Your task to perform on an android device: uninstall "VLC for Android" Image 0: 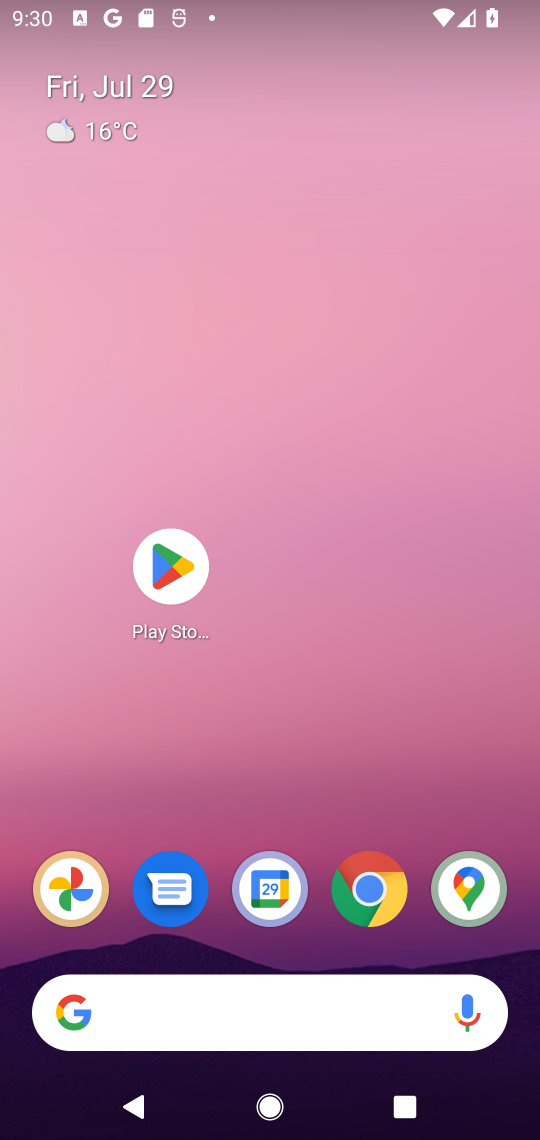
Step 0: click (141, 572)
Your task to perform on an android device: uninstall "VLC for Android" Image 1: 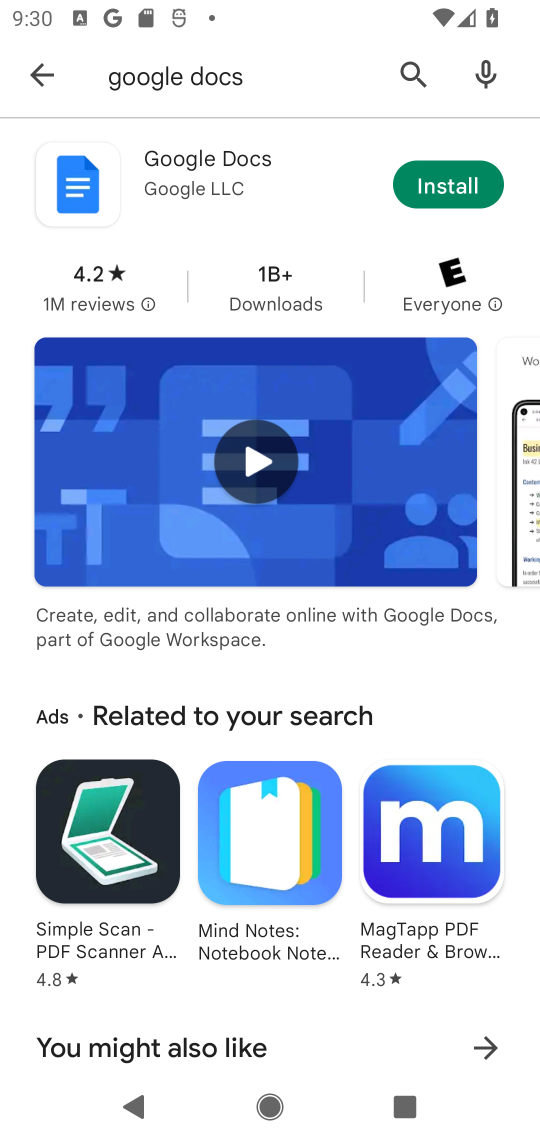
Step 1: click (405, 67)
Your task to perform on an android device: uninstall "VLC for Android" Image 2: 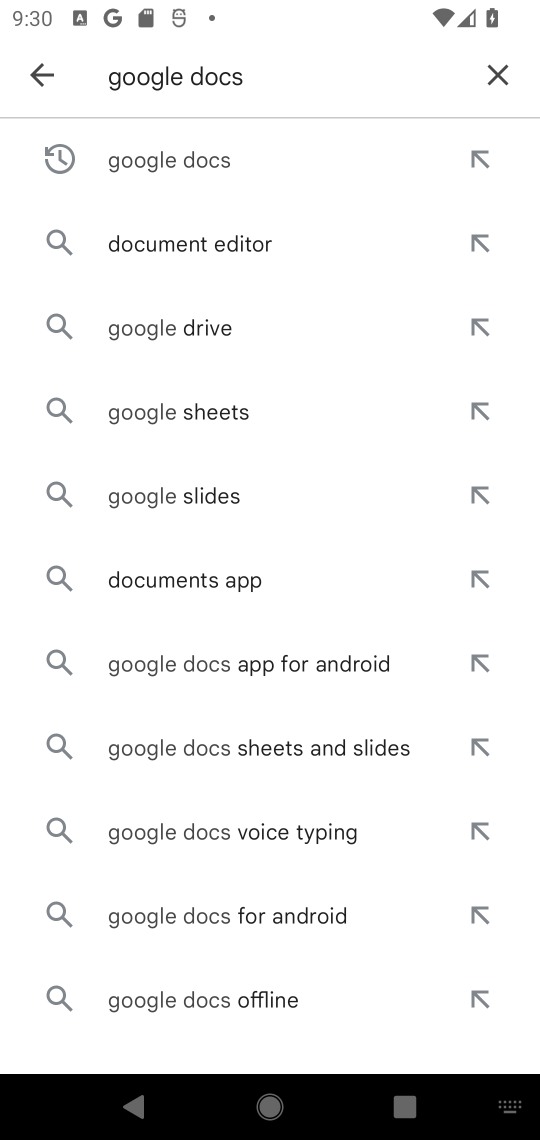
Step 2: click (498, 72)
Your task to perform on an android device: uninstall "VLC for Android" Image 3: 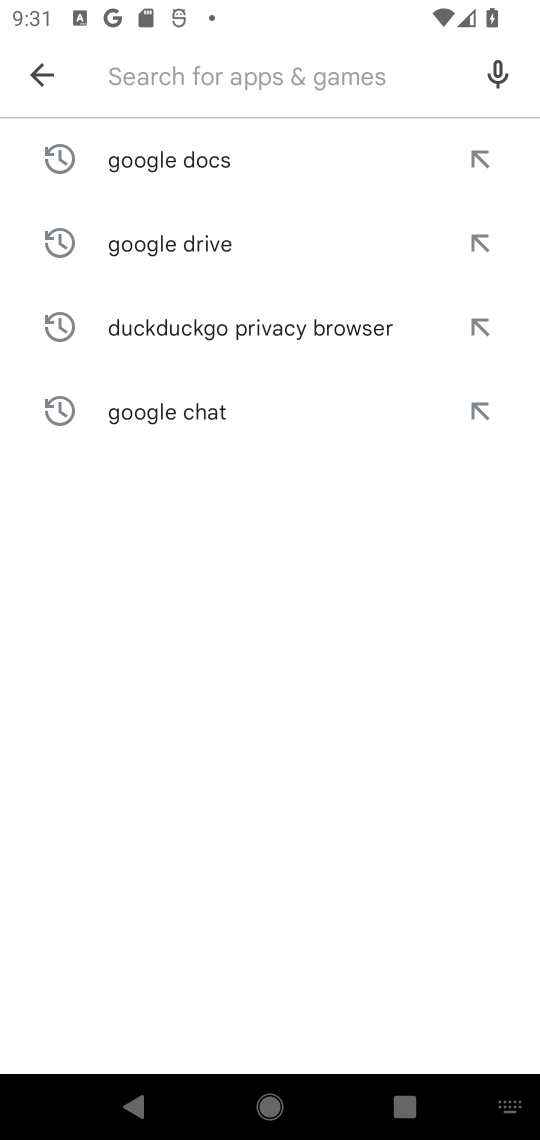
Step 3: type "VLC for Android"
Your task to perform on an android device: uninstall "VLC for Android" Image 4: 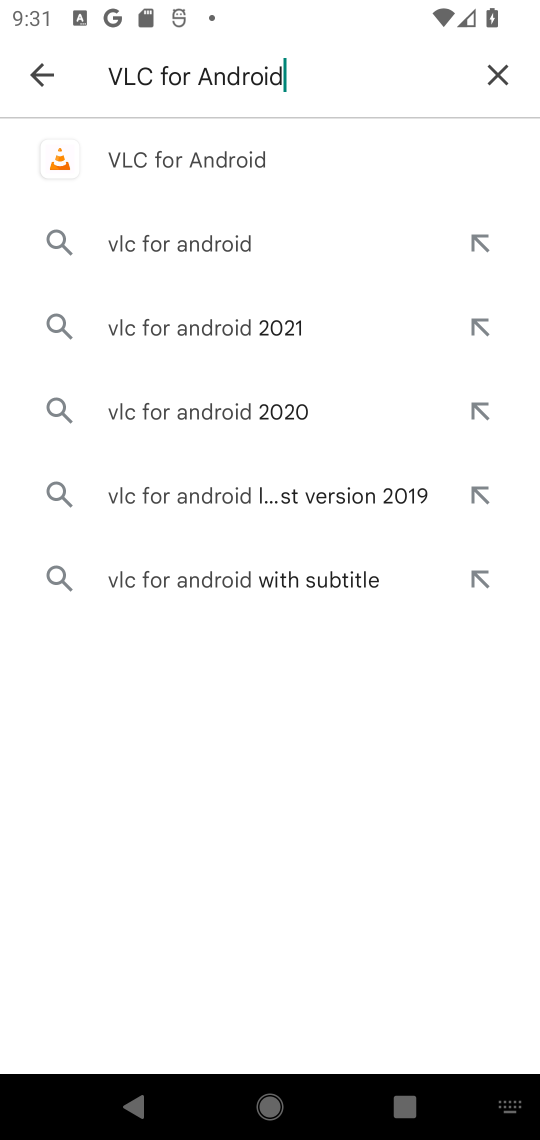
Step 4: click (243, 159)
Your task to perform on an android device: uninstall "VLC for Android" Image 5: 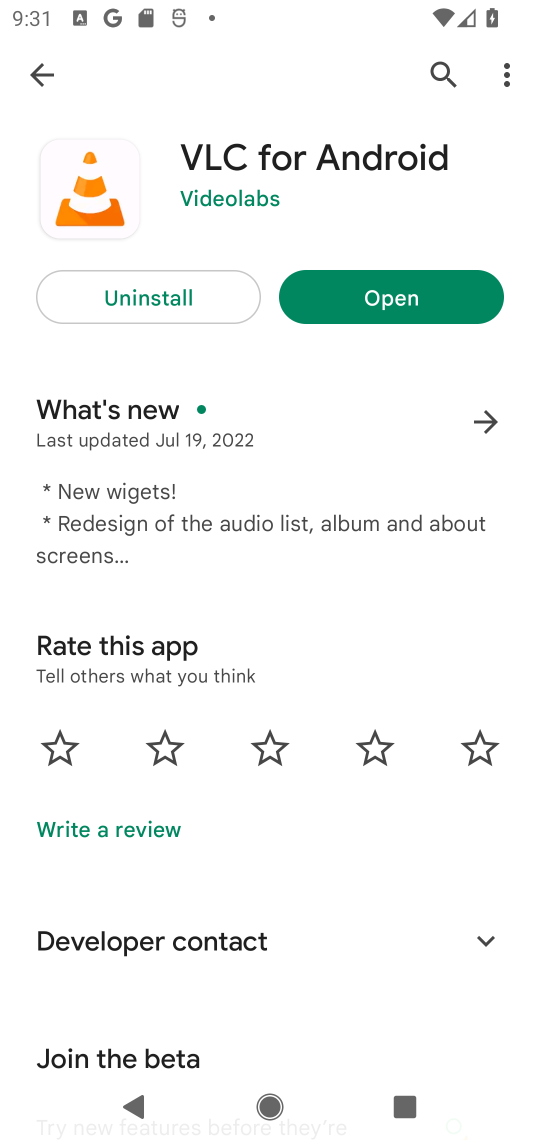
Step 5: click (152, 293)
Your task to perform on an android device: uninstall "VLC for Android" Image 6: 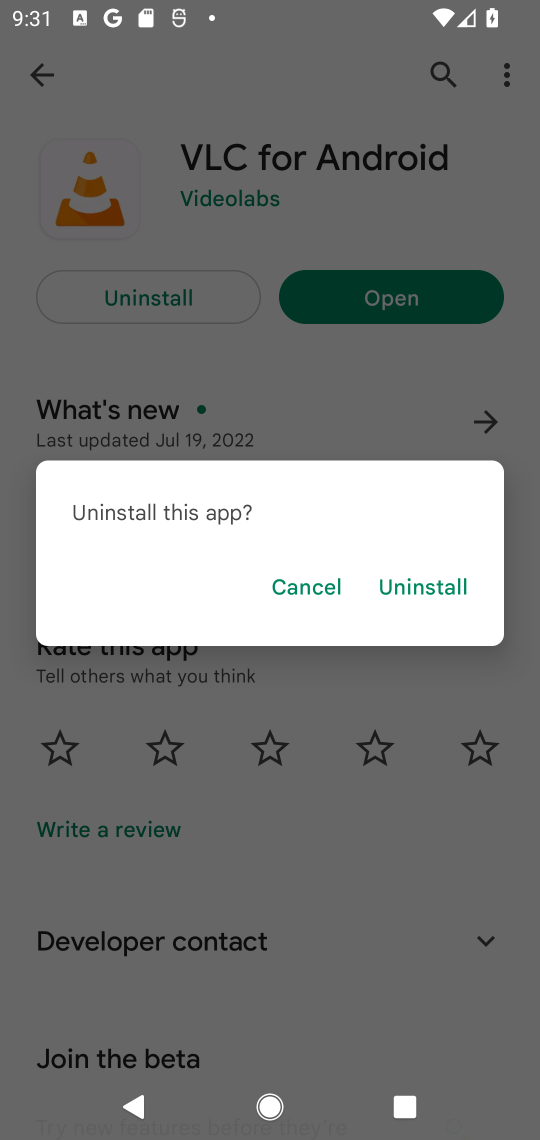
Step 6: click (411, 592)
Your task to perform on an android device: uninstall "VLC for Android" Image 7: 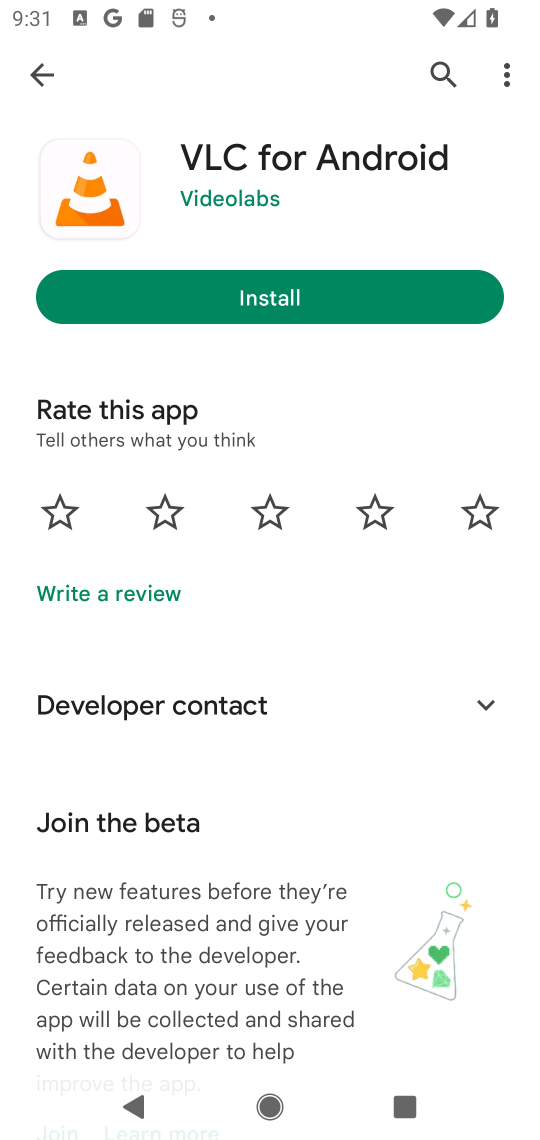
Step 7: task complete